Your task to perform on an android device: check android version Image 0: 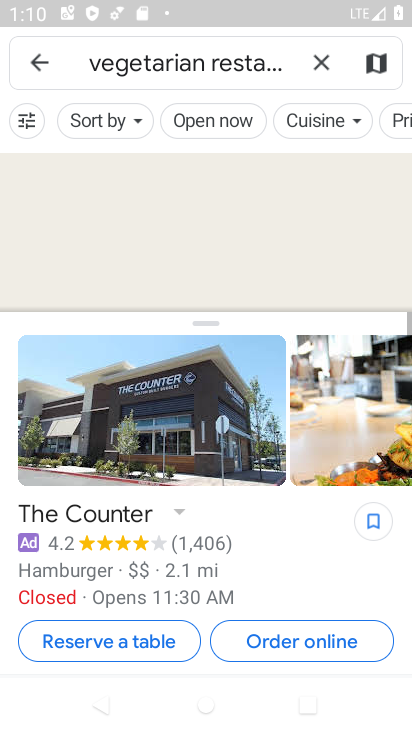
Step 0: press home button
Your task to perform on an android device: check android version Image 1: 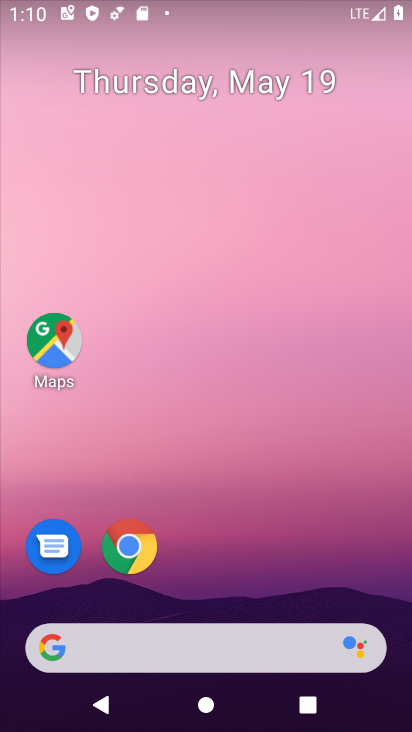
Step 1: drag from (191, 555) to (214, 15)
Your task to perform on an android device: check android version Image 2: 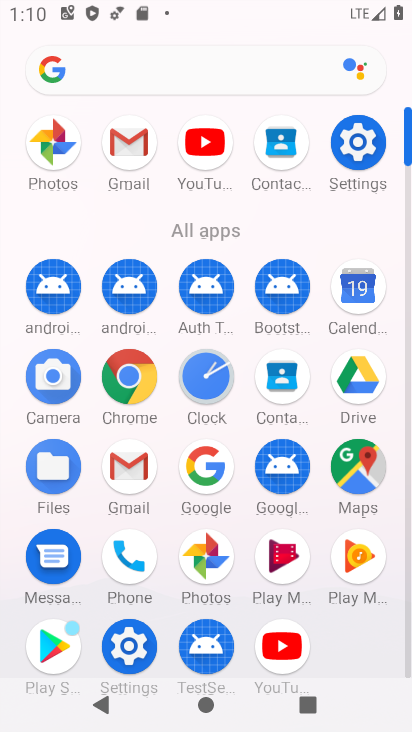
Step 2: click (352, 132)
Your task to perform on an android device: check android version Image 3: 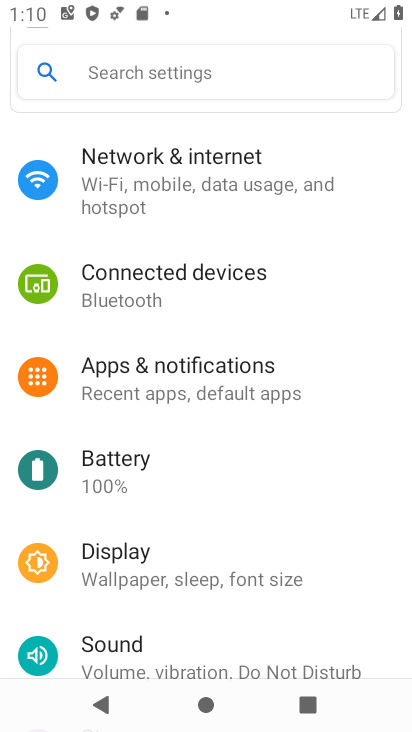
Step 3: drag from (104, 647) to (189, 255)
Your task to perform on an android device: check android version Image 4: 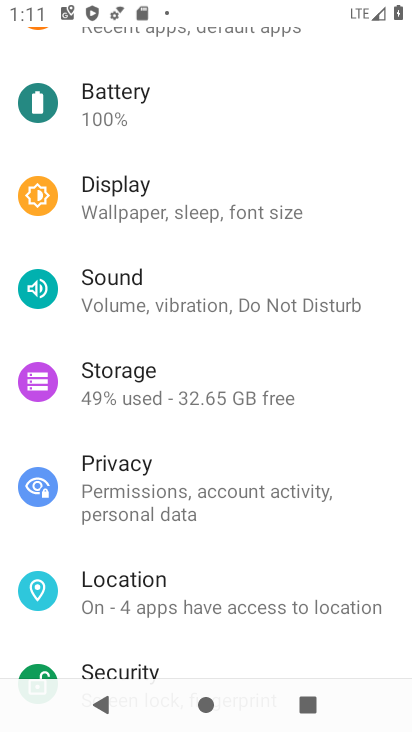
Step 4: drag from (115, 620) to (248, 127)
Your task to perform on an android device: check android version Image 5: 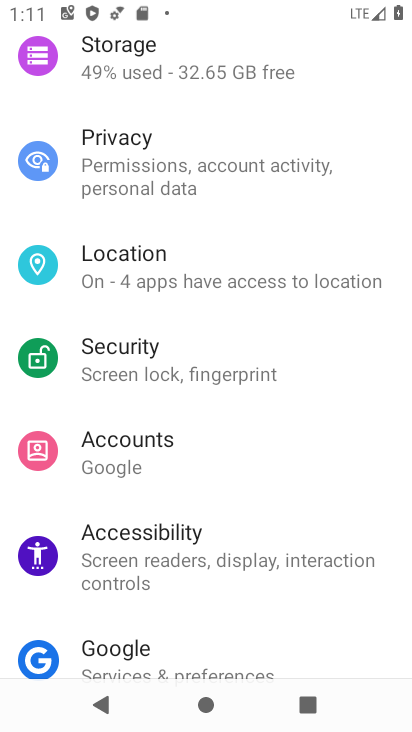
Step 5: drag from (105, 666) to (172, 98)
Your task to perform on an android device: check android version Image 6: 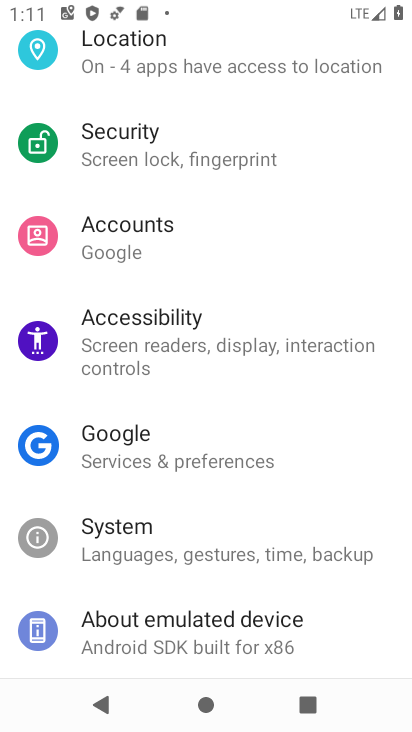
Step 6: click (197, 625)
Your task to perform on an android device: check android version Image 7: 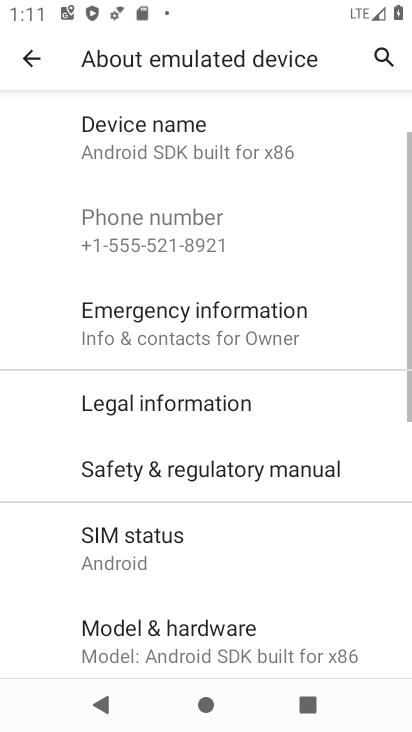
Step 7: drag from (169, 137) to (203, 596)
Your task to perform on an android device: check android version Image 8: 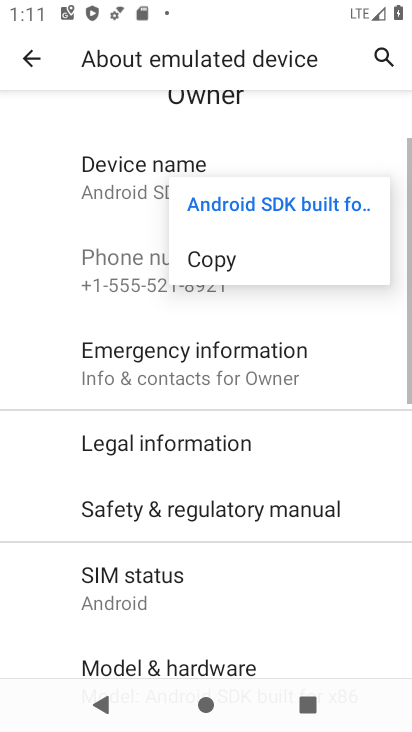
Step 8: click (46, 54)
Your task to perform on an android device: check android version Image 9: 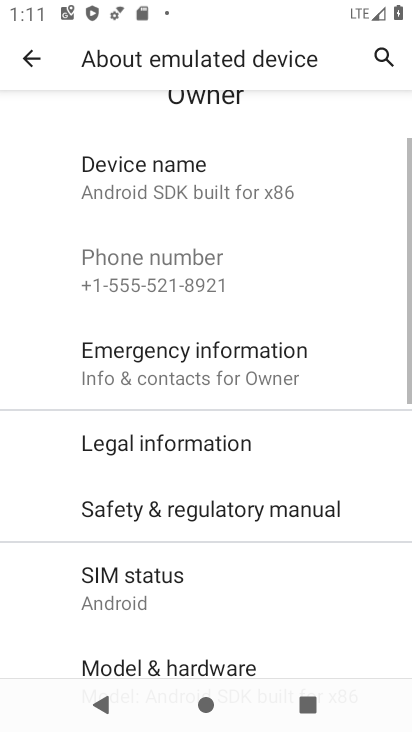
Step 9: drag from (139, 640) to (187, 186)
Your task to perform on an android device: check android version Image 10: 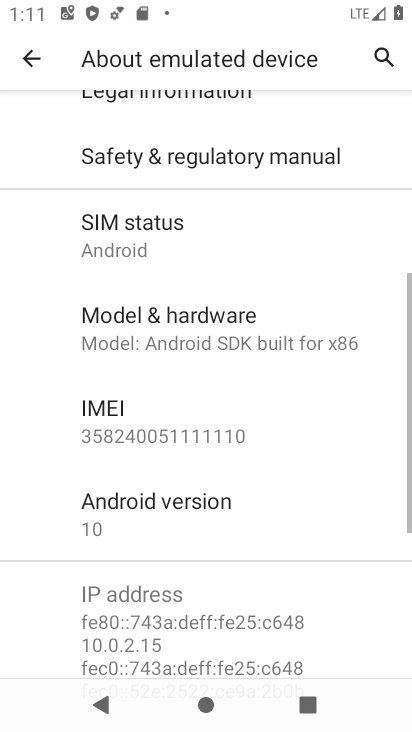
Step 10: click (102, 525)
Your task to perform on an android device: check android version Image 11: 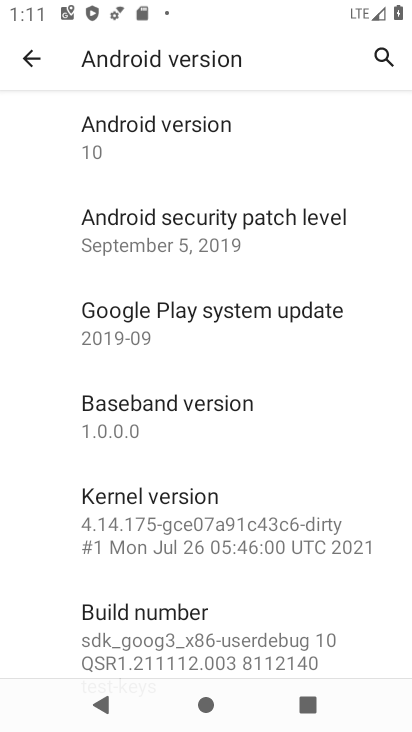
Step 11: task complete